Your task to perform on an android device: see tabs open on other devices in the chrome app Image 0: 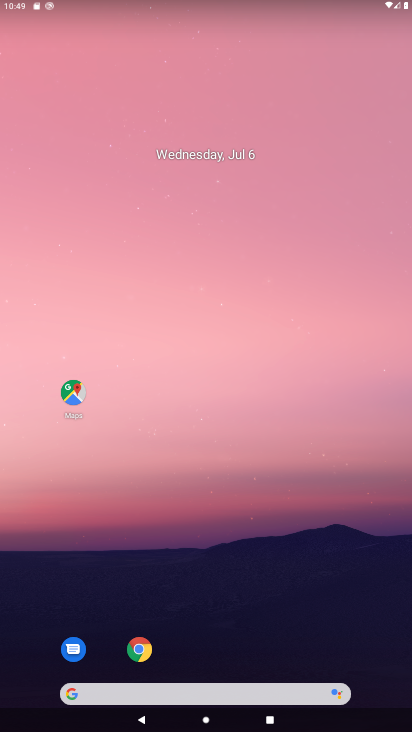
Step 0: drag from (268, 590) to (292, 6)
Your task to perform on an android device: see tabs open on other devices in the chrome app Image 1: 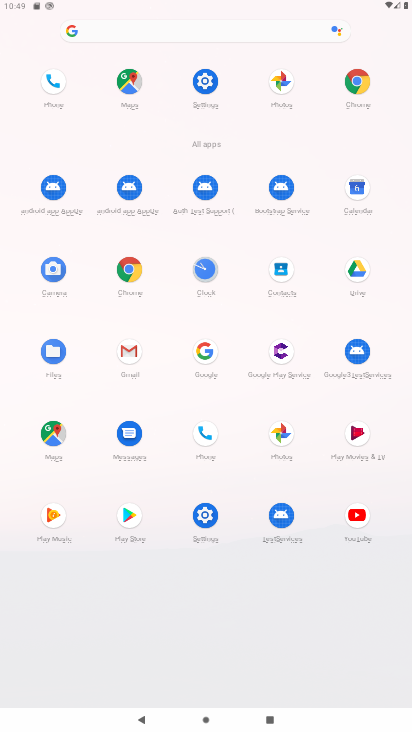
Step 1: click (128, 271)
Your task to perform on an android device: see tabs open on other devices in the chrome app Image 2: 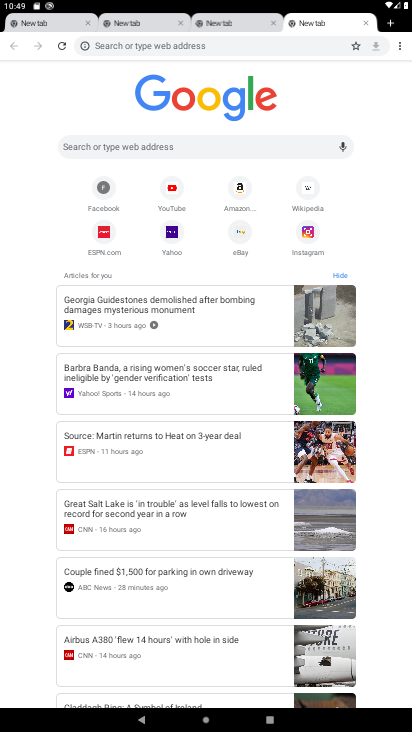
Step 2: task complete